Your task to perform on an android device: When is my next meeting? Image 0: 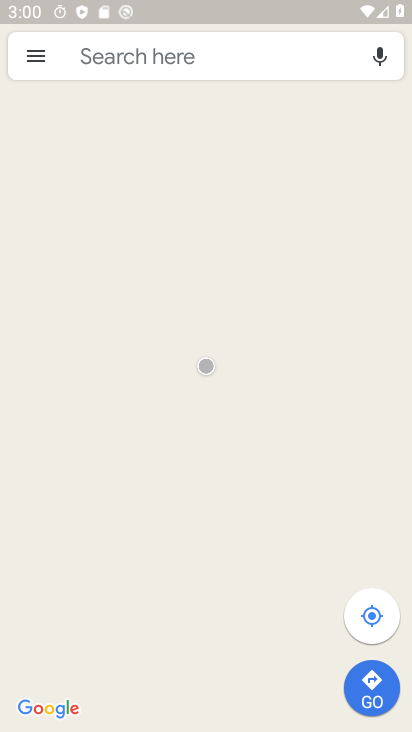
Step 0: press home button
Your task to perform on an android device: When is my next meeting? Image 1: 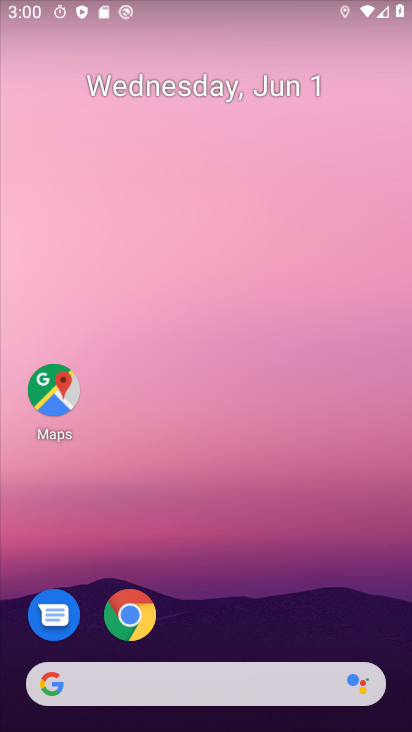
Step 1: drag from (298, 689) to (280, 8)
Your task to perform on an android device: When is my next meeting? Image 2: 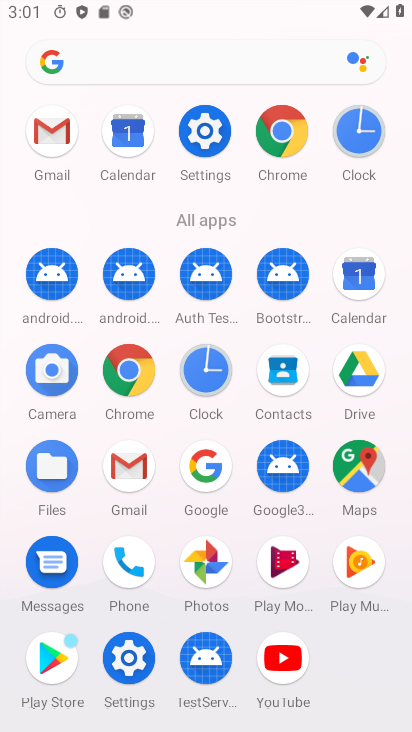
Step 2: click (343, 281)
Your task to perform on an android device: When is my next meeting? Image 3: 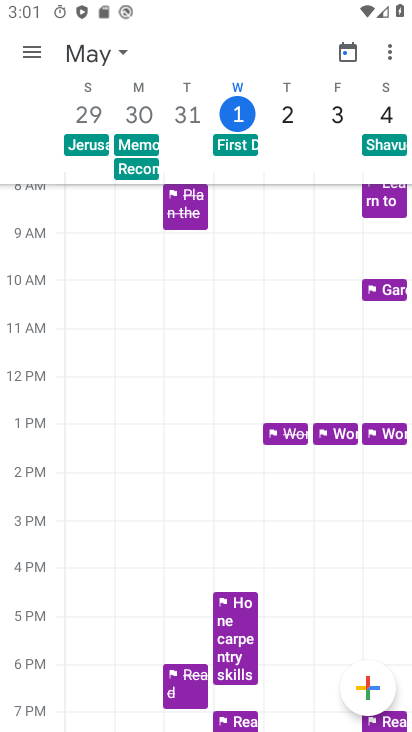
Step 3: click (115, 47)
Your task to perform on an android device: When is my next meeting? Image 4: 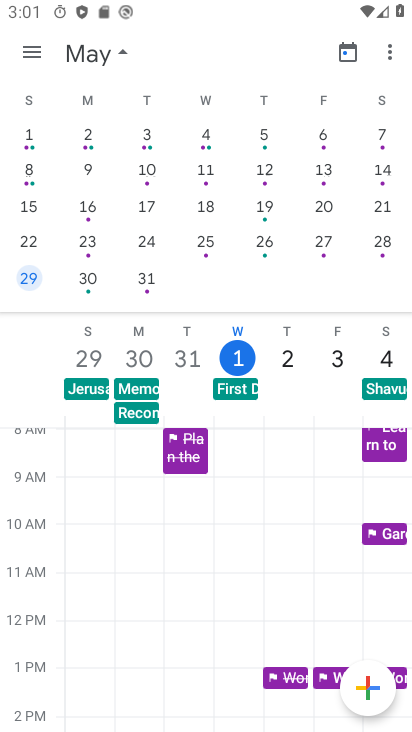
Step 4: click (90, 137)
Your task to perform on an android device: When is my next meeting? Image 5: 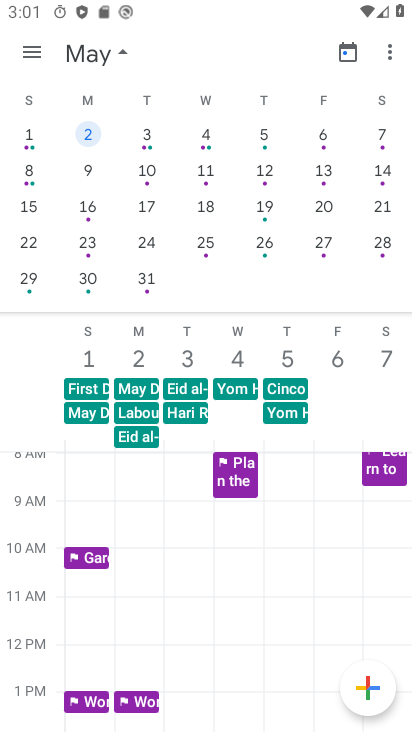
Step 5: task complete